Your task to perform on an android device: turn on airplane mode Image 0: 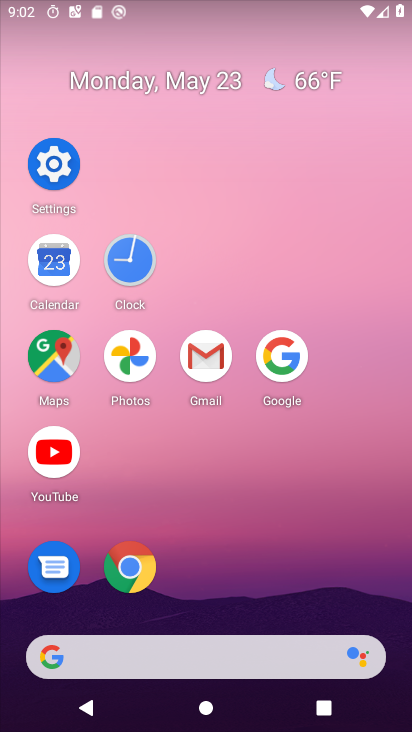
Step 0: click (61, 144)
Your task to perform on an android device: turn on airplane mode Image 1: 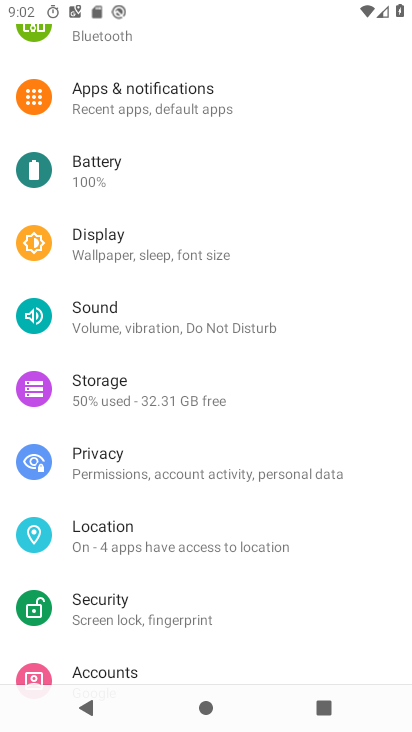
Step 1: drag from (260, 189) to (249, 585)
Your task to perform on an android device: turn on airplane mode Image 2: 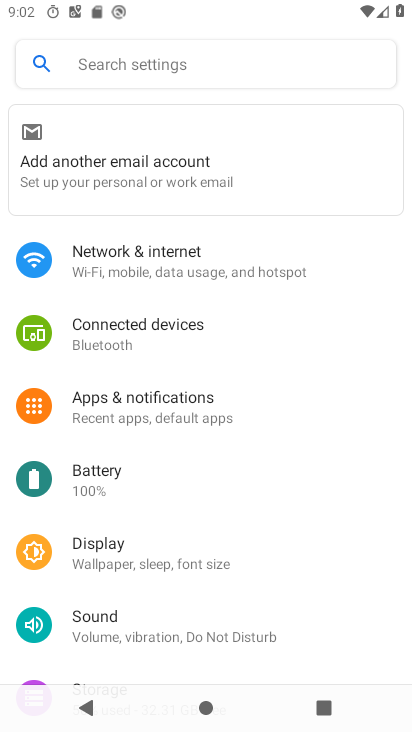
Step 2: click (180, 256)
Your task to perform on an android device: turn on airplane mode Image 3: 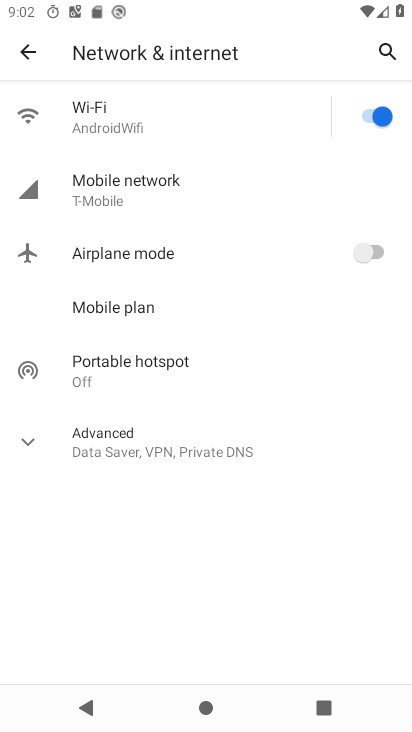
Step 3: click (180, 256)
Your task to perform on an android device: turn on airplane mode Image 4: 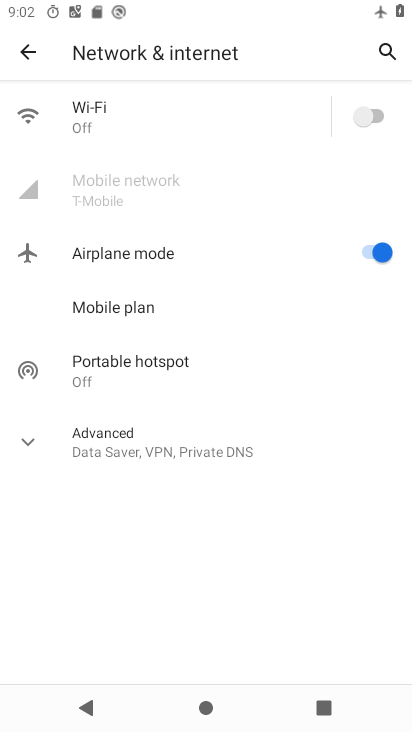
Step 4: task complete